Your task to perform on an android device: change notifications settings Image 0: 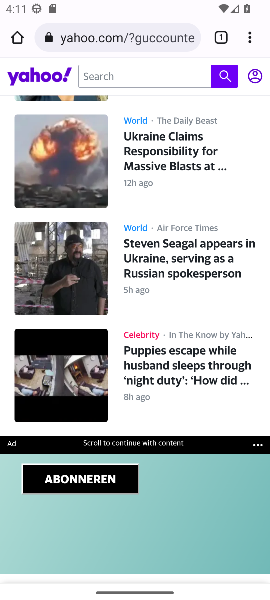
Step 0: press home button
Your task to perform on an android device: change notifications settings Image 1: 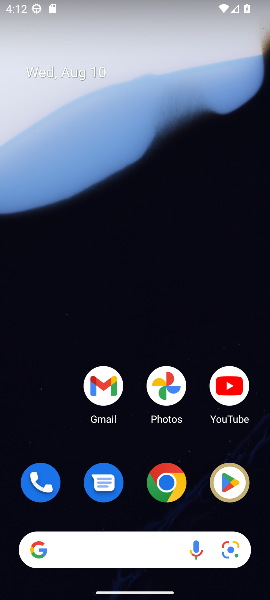
Step 1: drag from (60, 415) to (97, 19)
Your task to perform on an android device: change notifications settings Image 2: 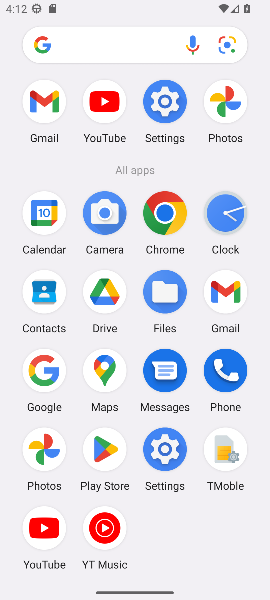
Step 2: click (165, 451)
Your task to perform on an android device: change notifications settings Image 3: 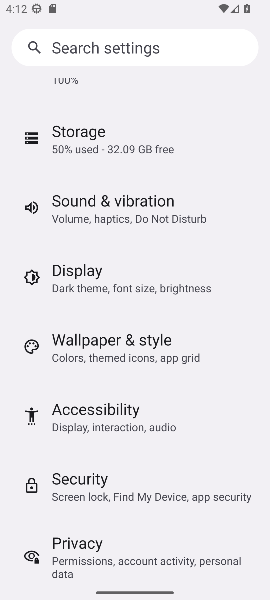
Step 3: drag from (160, 136) to (141, 507)
Your task to perform on an android device: change notifications settings Image 4: 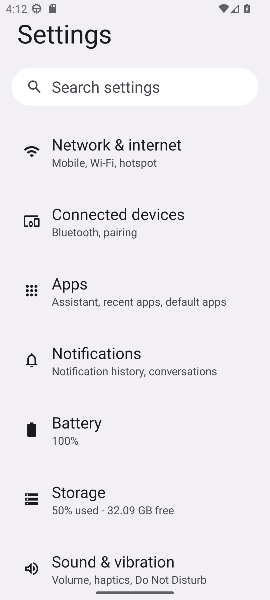
Step 4: click (146, 366)
Your task to perform on an android device: change notifications settings Image 5: 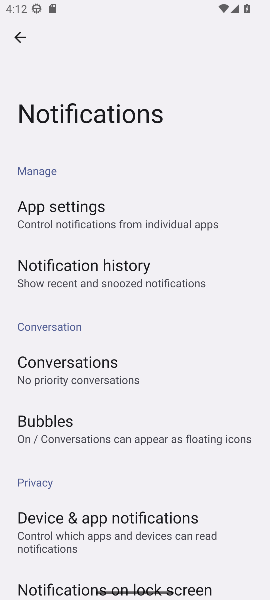
Step 5: drag from (143, 483) to (164, 185)
Your task to perform on an android device: change notifications settings Image 6: 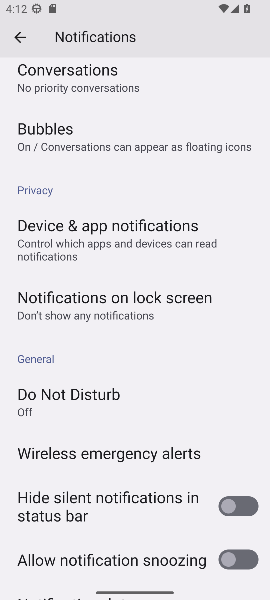
Step 6: drag from (171, 131) to (169, 509)
Your task to perform on an android device: change notifications settings Image 7: 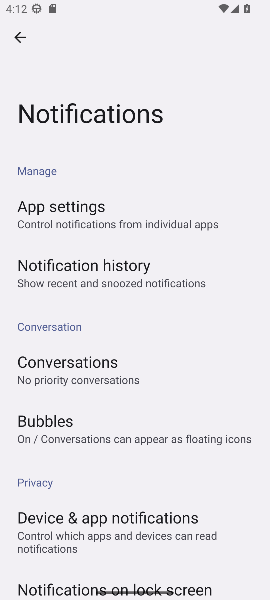
Step 7: click (152, 277)
Your task to perform on an android device: change notifications settings Image 8: 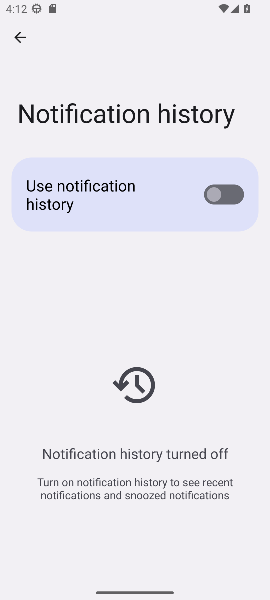
Step 8: click (23, 34)
Your task to perform on an android device: change notifications settings Image 9: 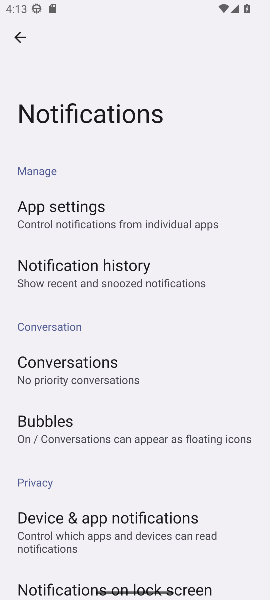
Step 9: click (137, 217)
Your task to perform on an android device: change notifications settings Image 10: 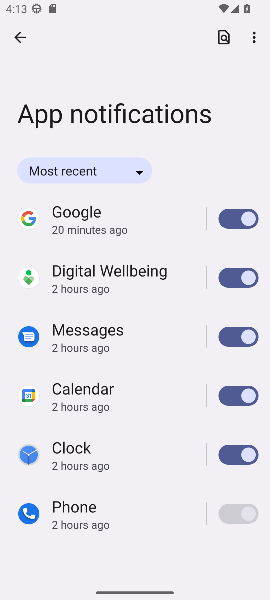
Step 10: drag from (146, 422) to (144, 133)
Your task to perform on an android device: change notifications settings Image 11: 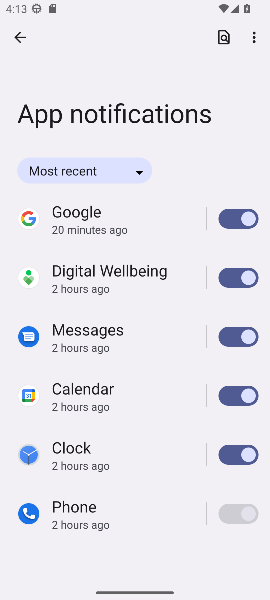
Step 11: click (244, 213)
Your task to perform on an android device: change notifications settings Image 12: 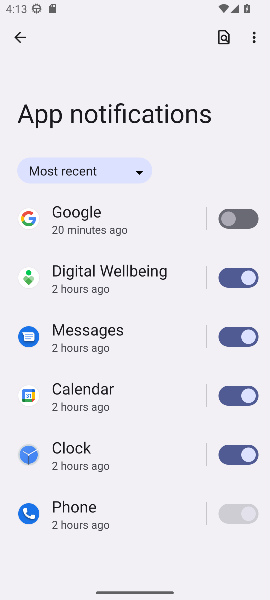
Step 12: click (236, 273)
Your task to perform on an android device: change notifications settings Image 13: 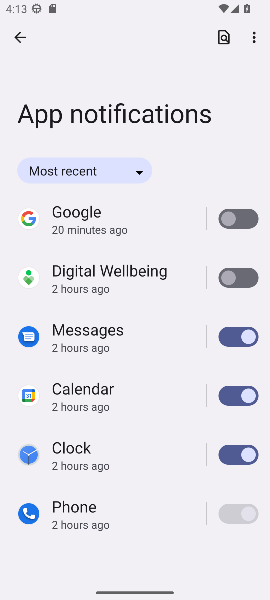
Step 13: click (236, 331)
Your task to perform on an android device: change notifications settings Image 14: 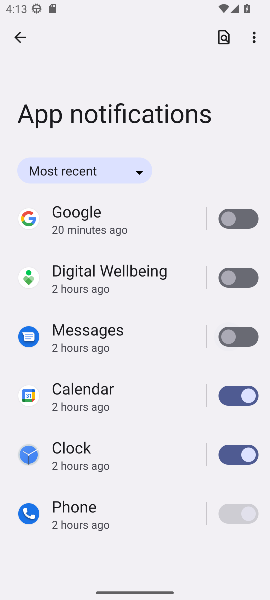
Step 14: click (240, 393)
Your task to perform on an android device: change notifications settings Image 15: 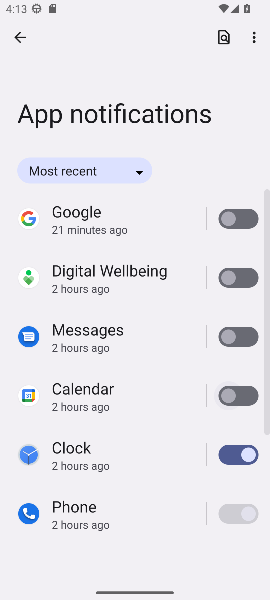
Step 15: click (244, 458)
Your task to perform on an android device: change notifications settings Image 16: 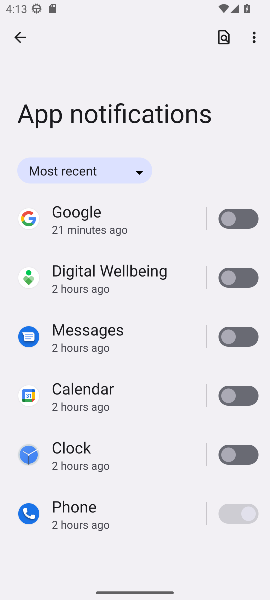
Step 16: click (244, 518)
Your task to perform on an android device: change notifications settings Image 17: 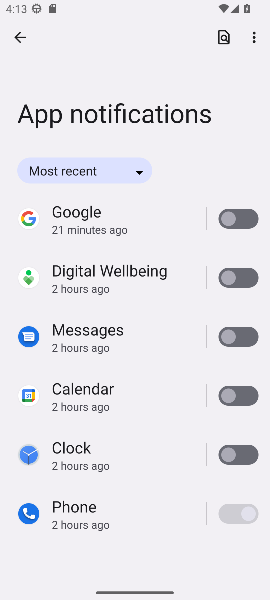
Step 17: task complete